Your task to perform on an android device: Check the weather Image 0: 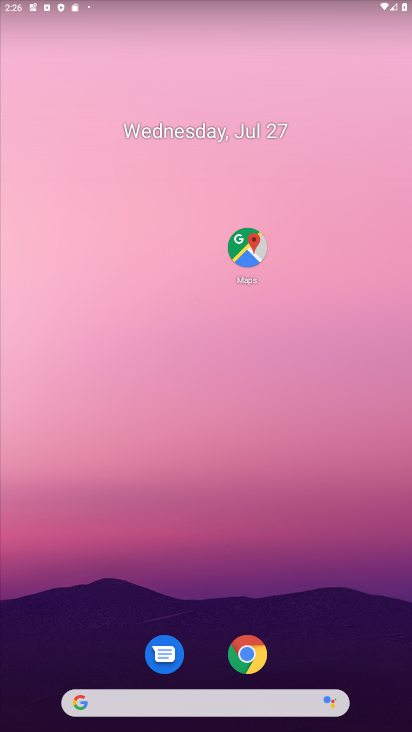
Step 0: click (156, 706)
Your task to perform on an android device: Check the weather Image 1: 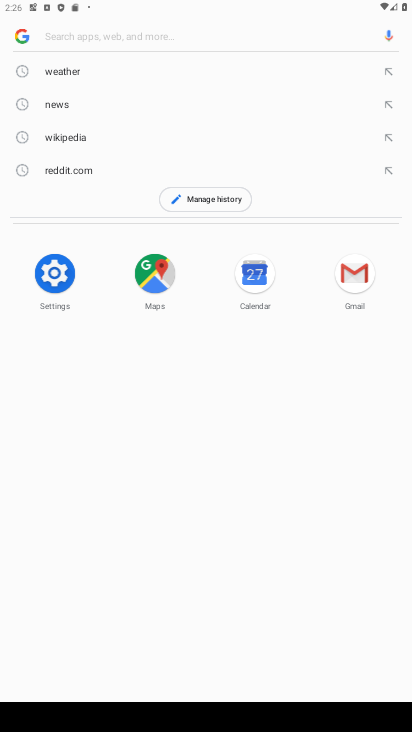
Step 1: click (101, 68)
Your task to perform on an android device: Check the weather Image 2: 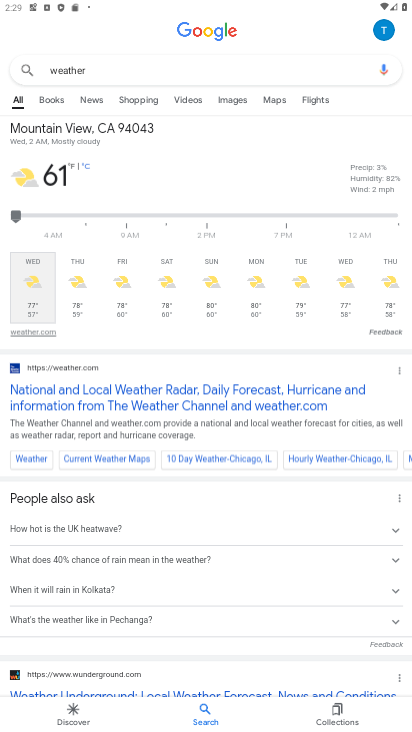
Step 2: task complete